Your task to perform on an android device: set default search engine in the chrome app Image 0: 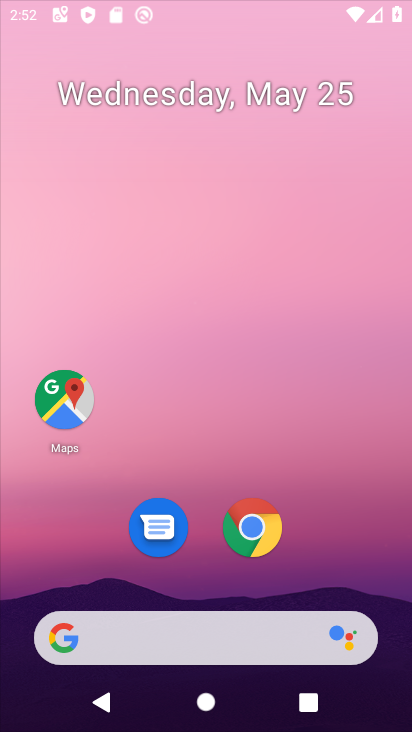
Step 0: click (315, 62)
Your task to perform on an android device: set default search engine in the chrome app Image 1: 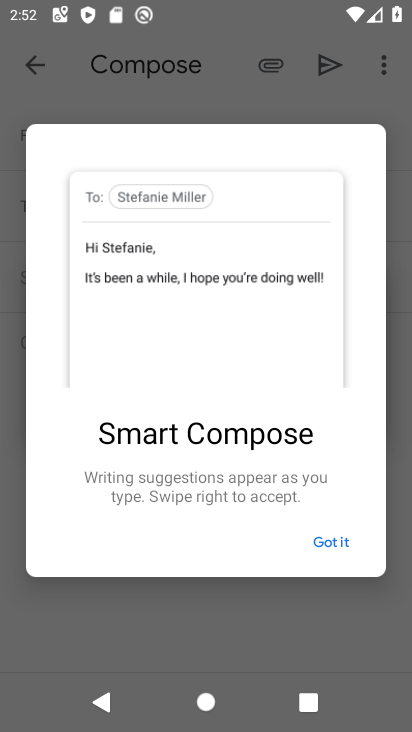
Step 1: drag from (205, 592) to (296, 135)
Your task to perform on an android device: set default search engine in the chrome app Image 2: 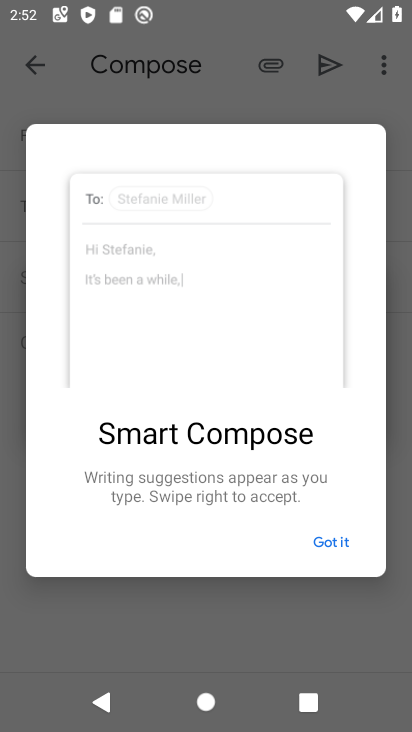
Step 2: press home button
Your task to perform on an android device: set default search engine in the chrome app Image 3: 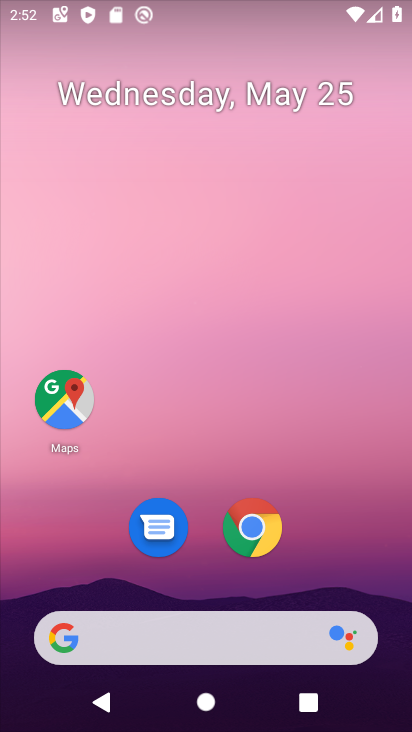
Step 3: drag from (208, 595) to (261, 104)
Your task to perform on an android device: set default search engine in the chrome app Image 4: 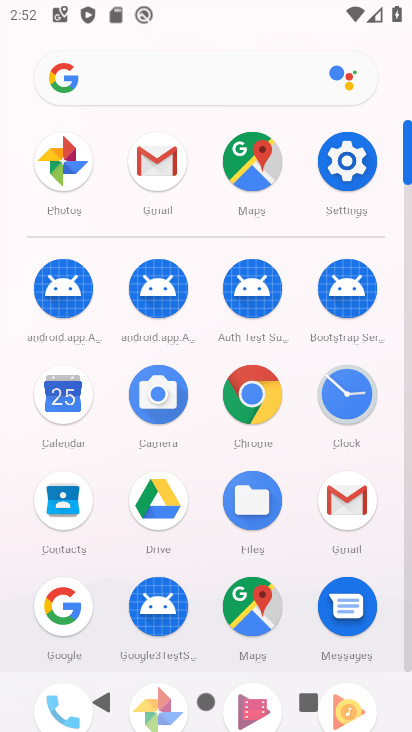
Step 4: click (242, 375)
Your task to perform on an android device: set default search engine in the chrome app Image 5: 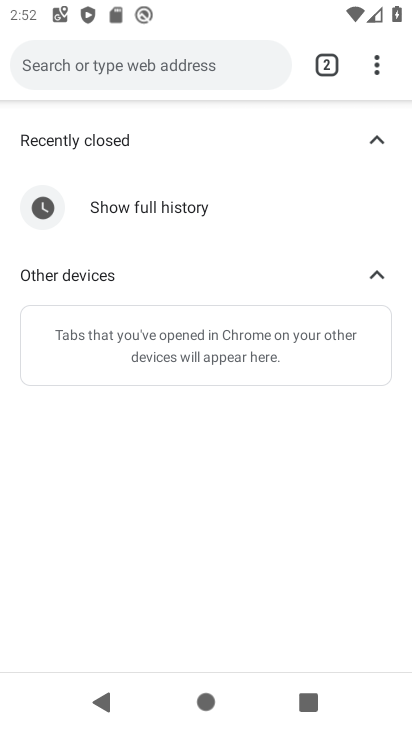
Step 5: click (369, 72)
Your task to perform on an android device: set default search engine in the chrome app Image 6: 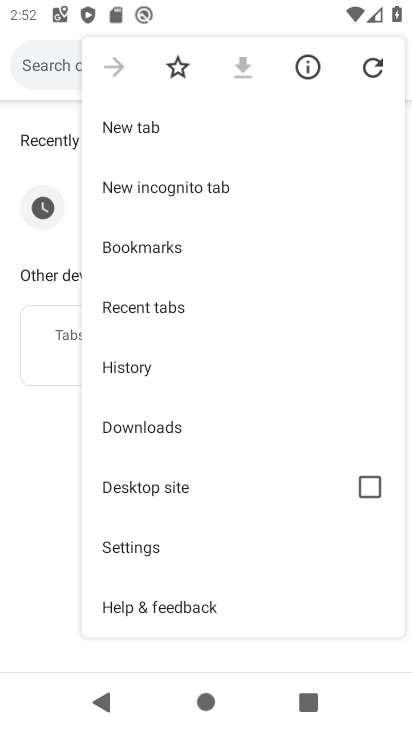
Step 6: drag from (226, 552) to (294, 88)
Your task to perform on an android device: set default search engine in the chrome app Image 7: 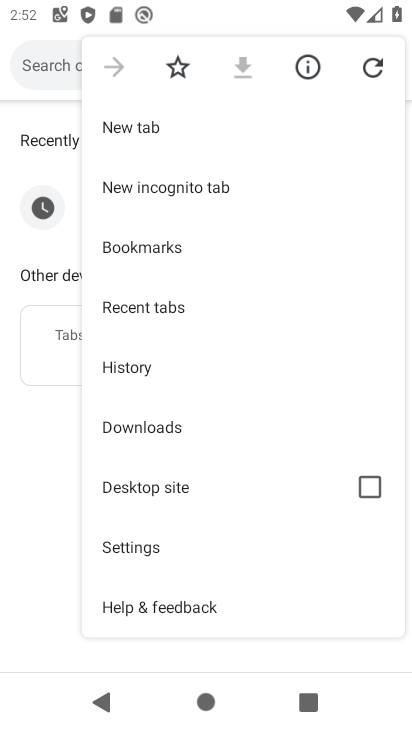
Step 7: click (131, 544)
Your task to perform on an android device: set default search engine in the chrome app Image 8: 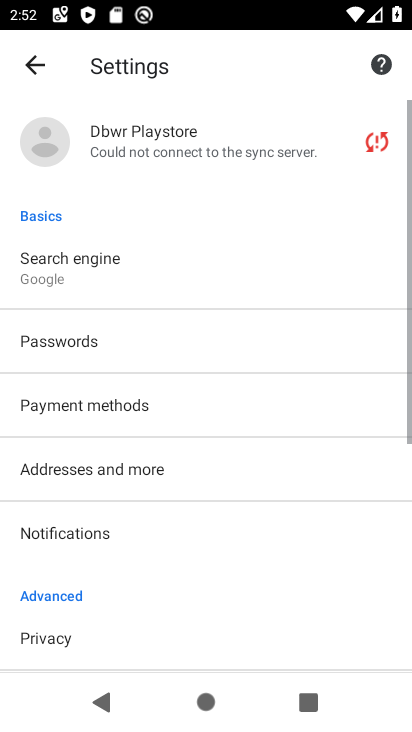
Step 8: click (134, 245)
Your task to perform on an android device: set default search engine in the chrome app Image 9: 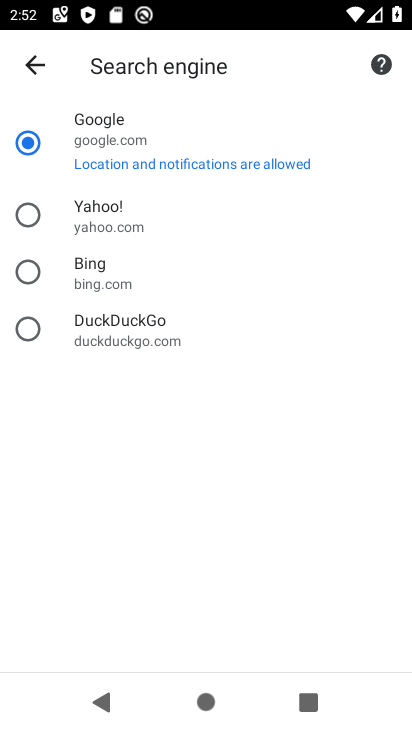
Step 9: task complete